Your task to perform on an android device: turn off sleep mode Image 0: 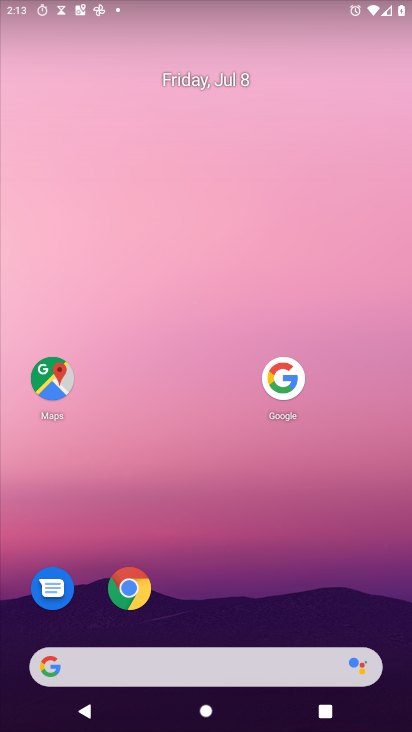
Step 0: drag from (156, 662) to (236, 60)
Your task to perform on an android device: turn off sleep mode Image 1: 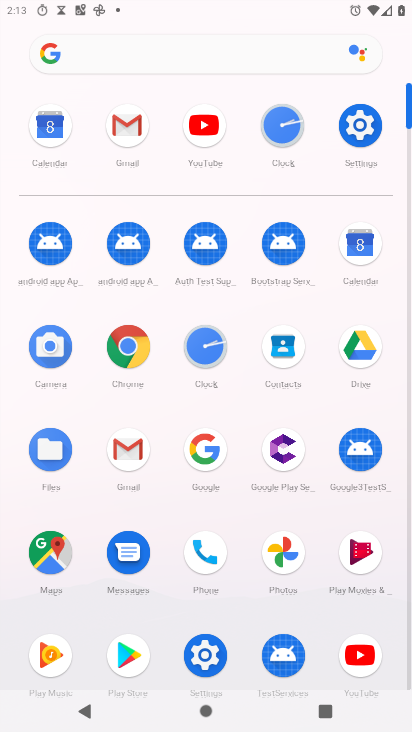
Step 1: click (360, 127)
Your task to perform on an android device: turn off sleep mode Image 2: 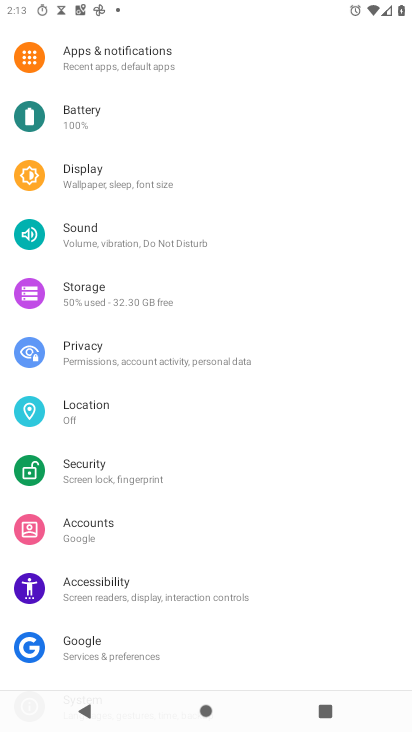
Step 2: click (148, 179)
Your task to perform on an android device: turn off sleep mode Image 3: 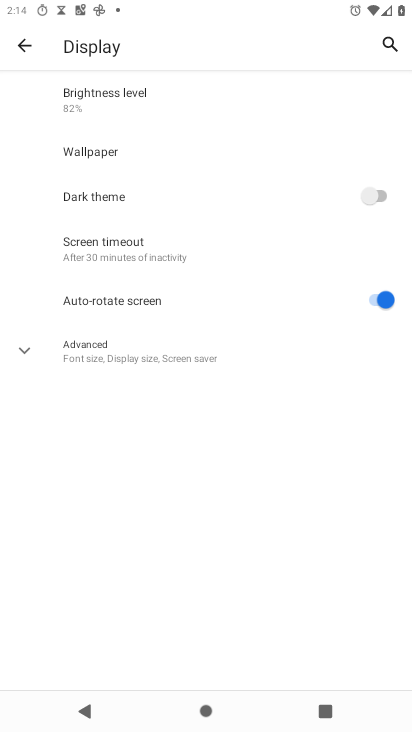
Step 3: task complete